Your task to perform on an android device: install app "Microsoft Outlook" Image 0: 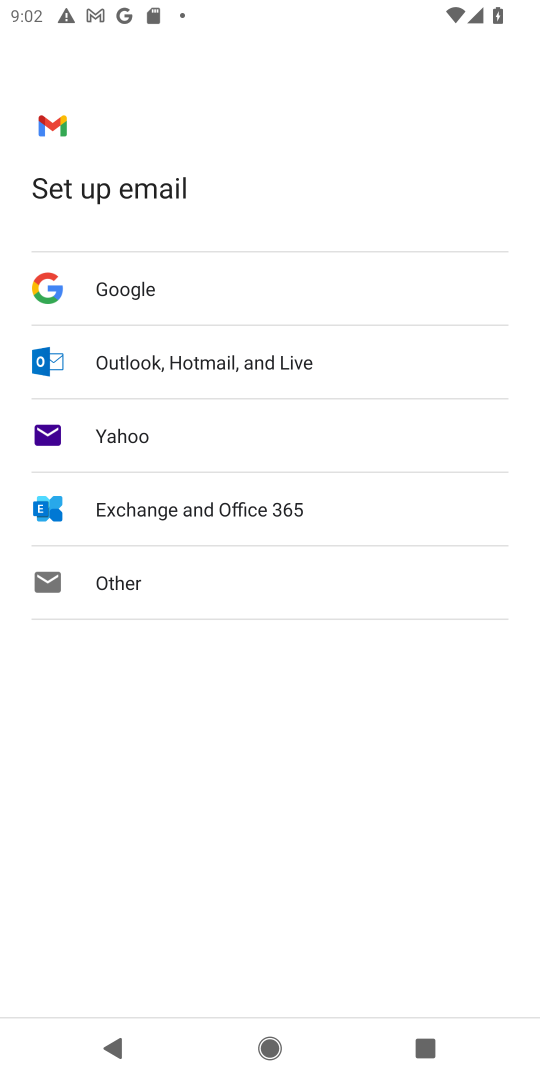
Step 0: press home button
Your task to perform on an android device: install app "Microsoft Outlook" Image 1: 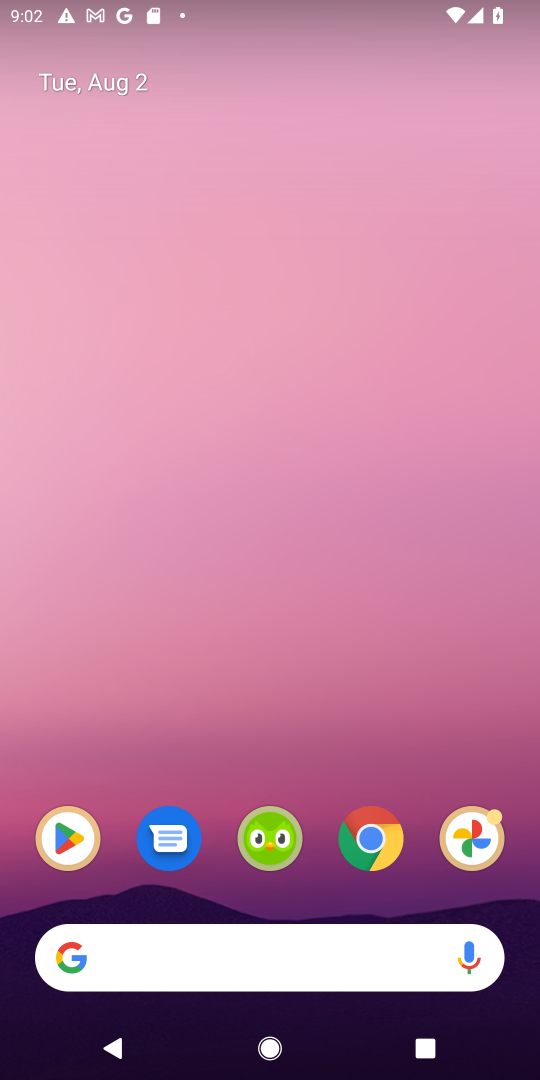
Step 1: drag from (333, 732) to (365, 48)
Your task to perform on an android device: install app "Microsoft Outlook" Image 2: 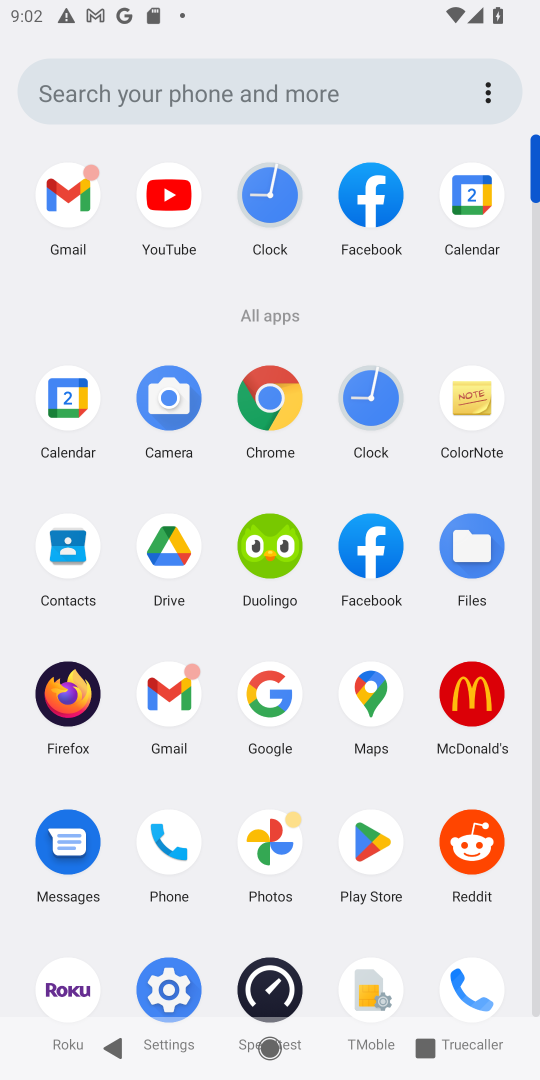
Step 2: click (369, 852)
Your task to perform on an android device: install app "Microsoft Outlook" Image 3: 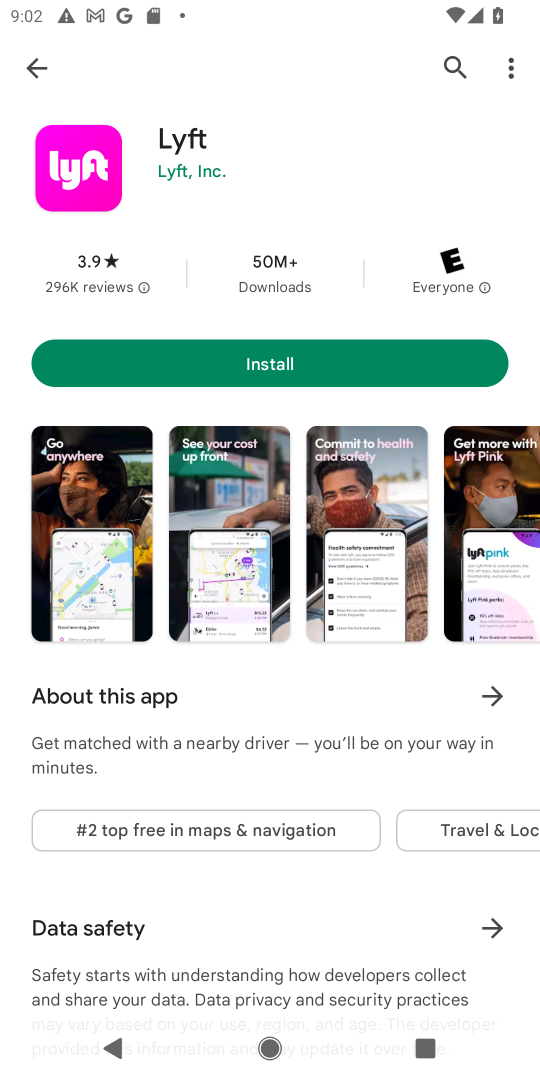
Step 3: click (449, 65)
Your task to perform on an android device: install app "Microsoft Outlook" Image 4: 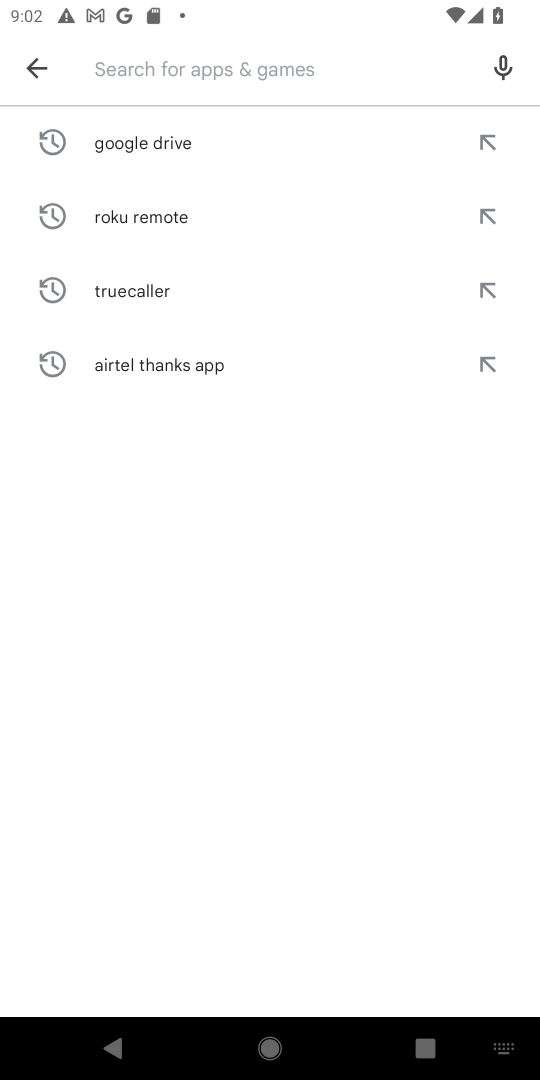
Step 4: click (350, 73)
Your task to perform on an android device: install app "Microsoft Outlook" Image 5: 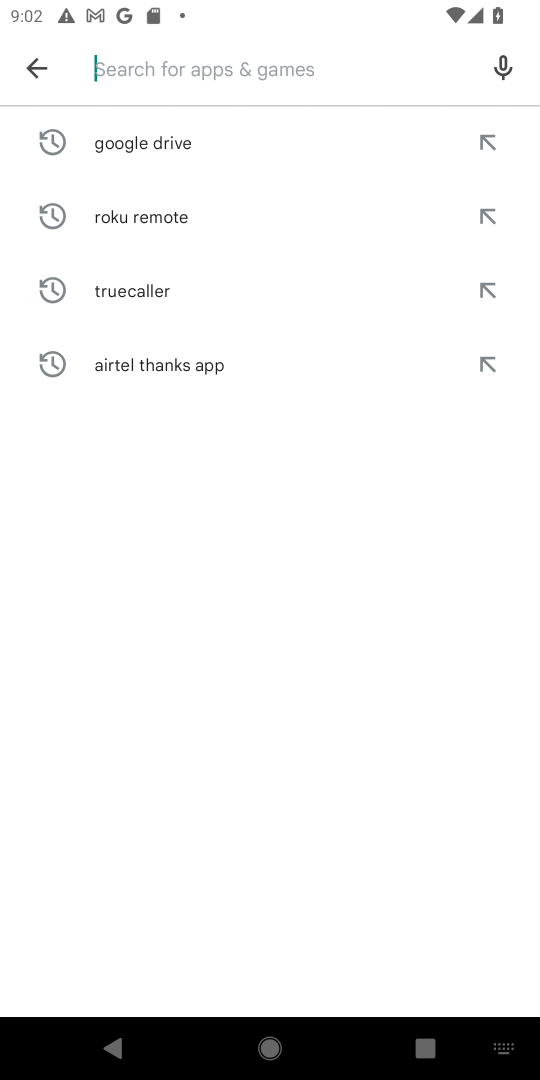
Step 5: type "Microsoft Outlook"
Your task to perform on an android device: install app "Microsoft Outlook" Image 6: 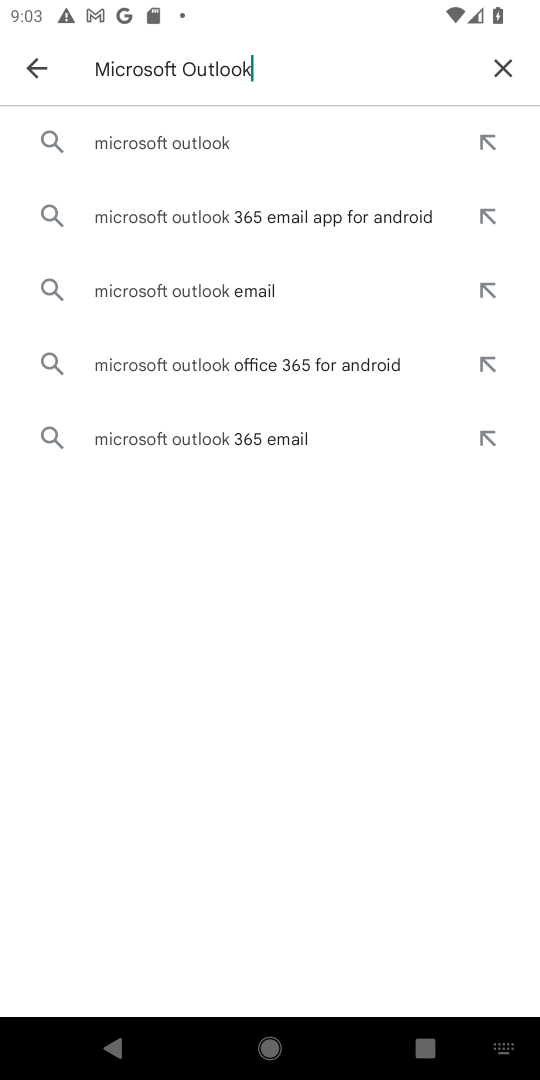
Step 6: click (232, 142)
Your task to perform on an android device: install app "Microsoft Outlook" Image 7: 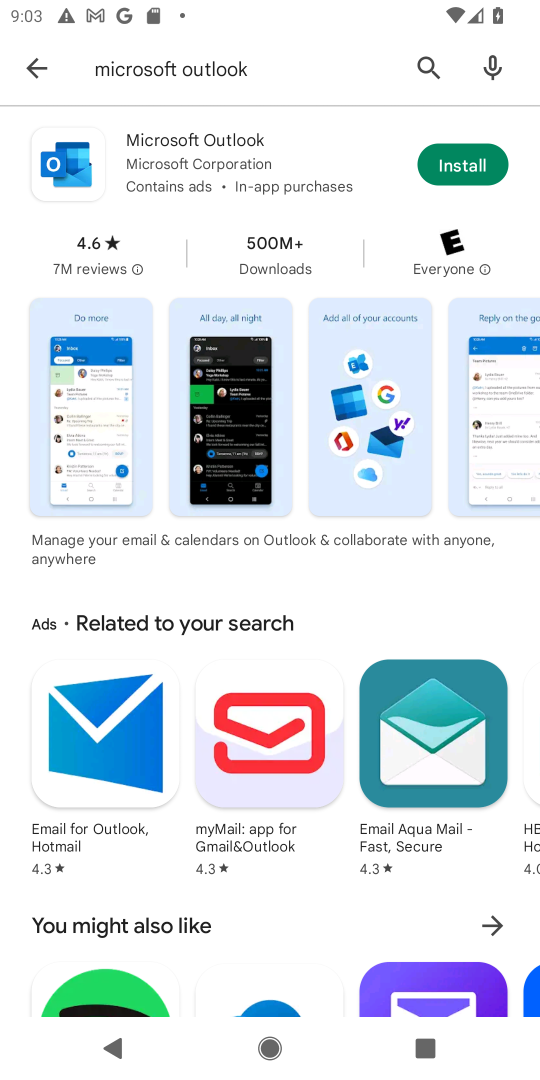
Step 7: click (463, 163)
Your task to perform on an android device: install app "Microsoft Outlook" Image 8: 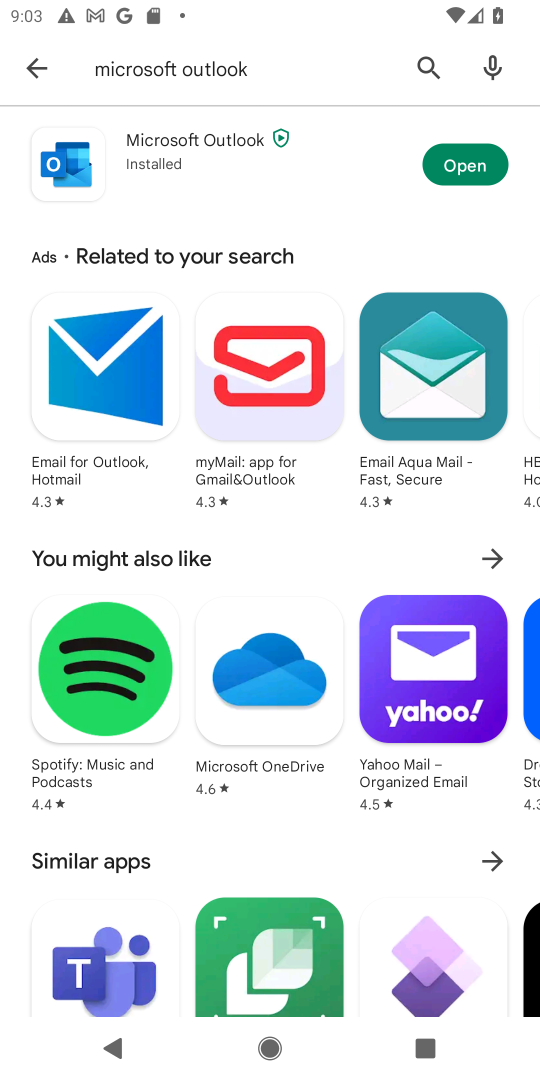
Step 8: task complete